Your task to perform on an android device: Go to Google Image 0: 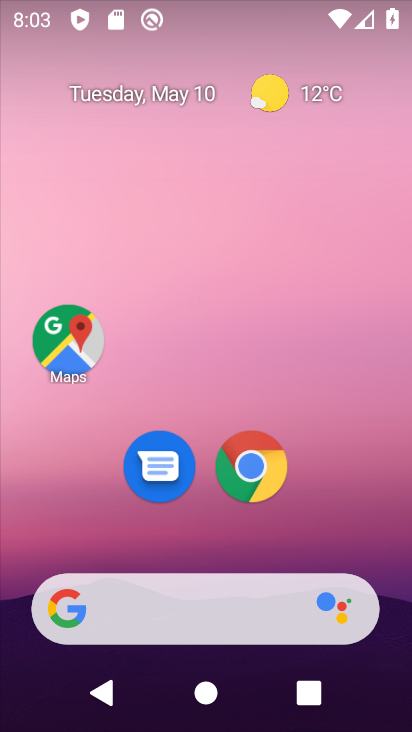
Step 0: click (241, 607)
Your task to perform on an android device: Go to Google Image 1: 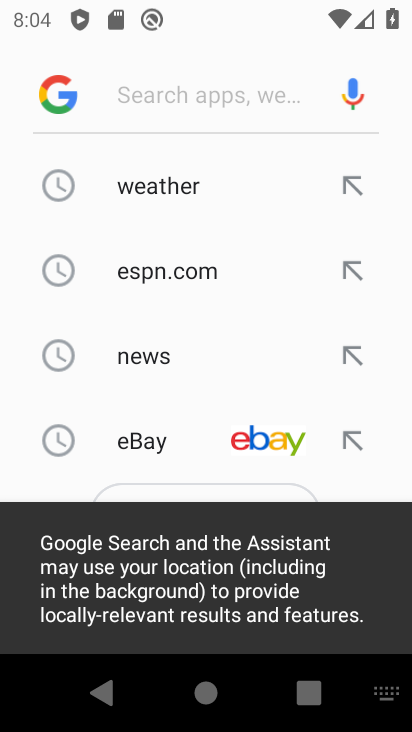
Step 1: click (68, 105)
Your task to perform on an android device: Go to Google Image 2: 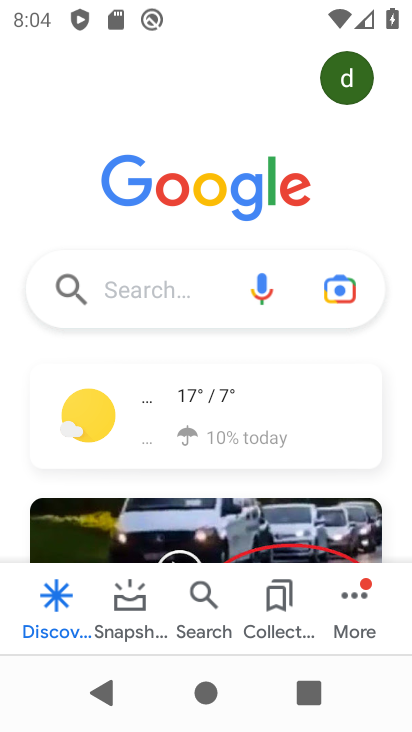
Step 2: task complete